Your task to perform on an android device: Search for vegetarian restaurants on Maps Image 0: 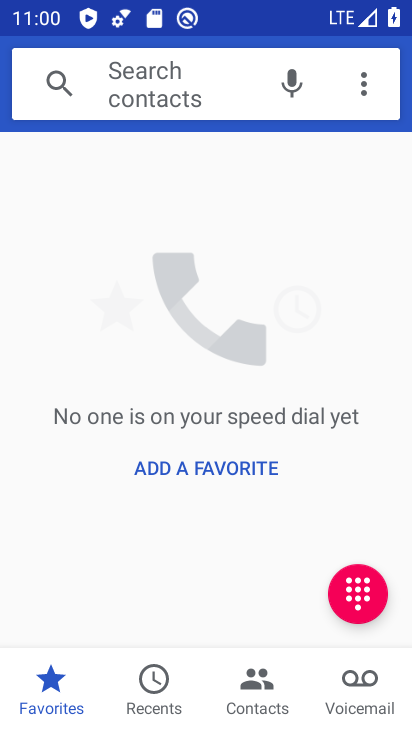
Step 0: press home button
Your task to perform on an android device: Search for vegetarian restaurants on Maps Image 1: 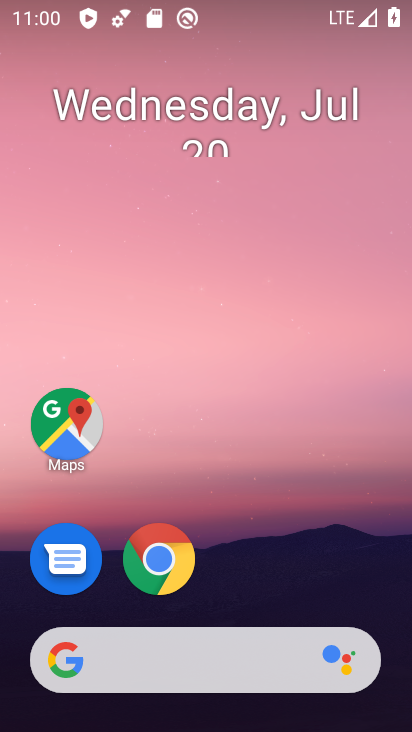
Step 1: drag from (164, 600) to (210, 49)
Your task to perform on an android device: Search for vegetarian restaurants on Maps Image 2: 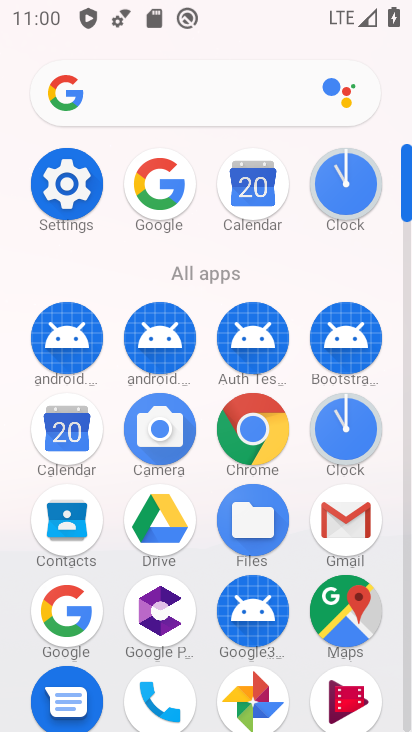
Step 2: click (353, 636)
Your task to perform on an android device: Search for vegetarian restaurants on Maps Image 3: 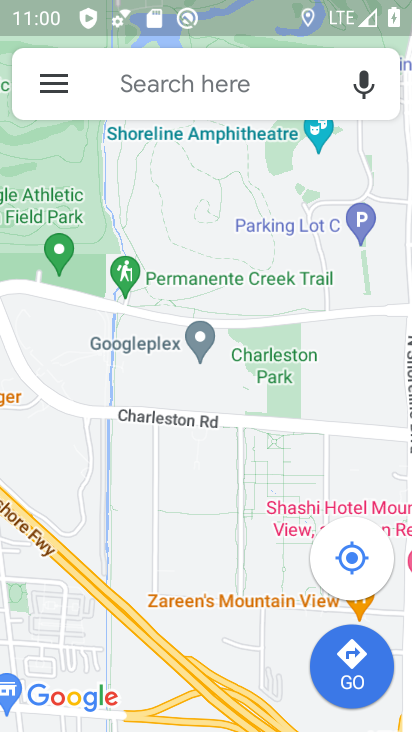
Step 3: click (174, 89)
Your task to perform on an android device: Search for vegetarian restaurants on Maps Image 4: 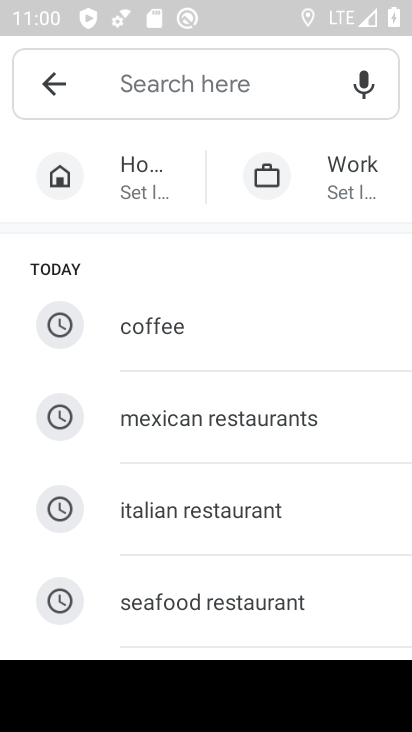
Step 4: drag from (188, 490) to (174, 223)
Your task to perform on an android device: Search for vegetarian restaurants on Maps Image 5: 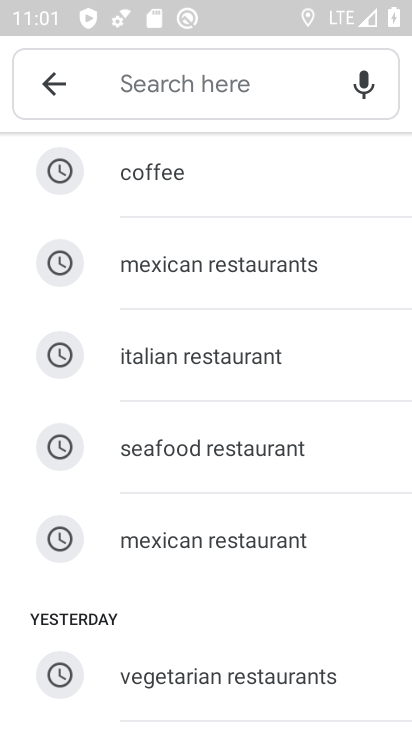
Step 5: click (197, 689)
Your task to perform on an android device: Search for vegetarian restaurants on Maps Image 6: 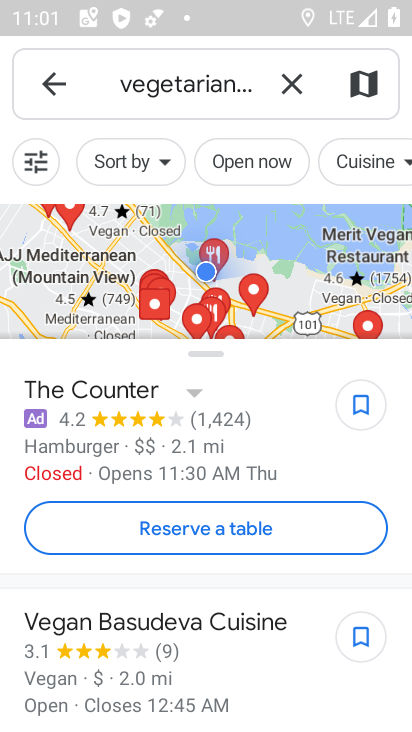
Step 6: task complete